Your task to perform on an android device: Go to accessibility settings Image 0: 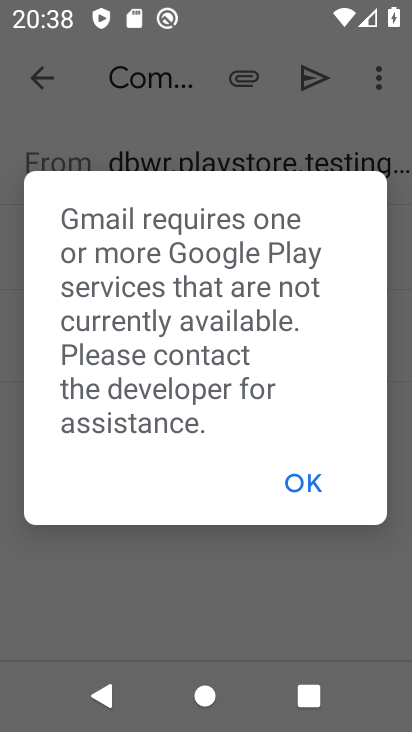
Step 0: press home button
Your task to perform on an android device: Go to accessibility settings Image 1: 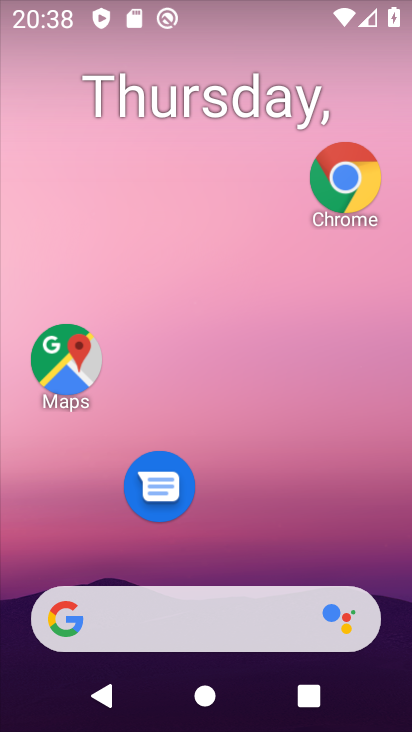
Step 1: drag from (211, 565) to (48, 23)
Your task to perform on an android device: Go to accessibility settings Image 2: 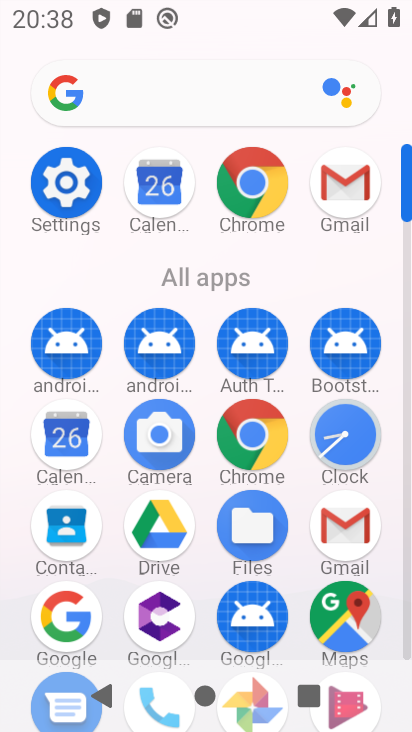
Step 2: click (48, 206)
Your task to perform on an android device: Go to accessibility settings Image 3: 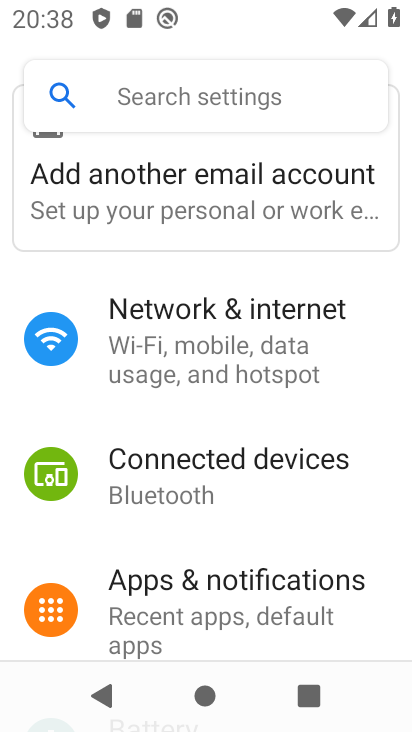
Step 3: drag from (187, 521) to (100, 57)
Your task to perform on an android device: Go to accessibility settings Image 4: 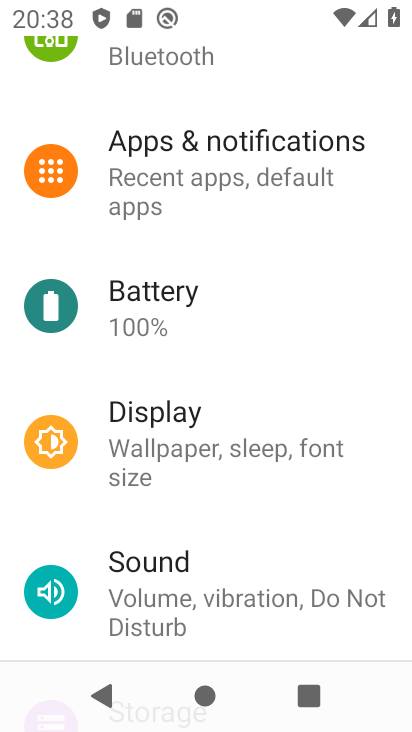
Step 4: drag from (180, 524) to (72, 39)
Your task to perform on an android device: Go to accessibility settings Image 5: 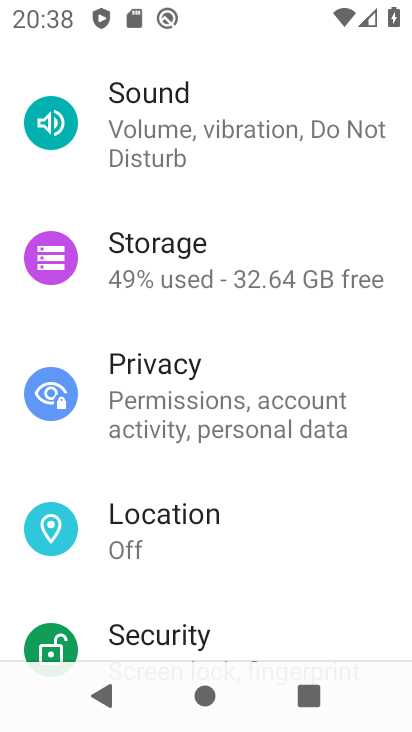
Step 5: drag from (272, 470) to (201, 118)
Your task to perform on an android device: Go to accessibility settings Image 6: 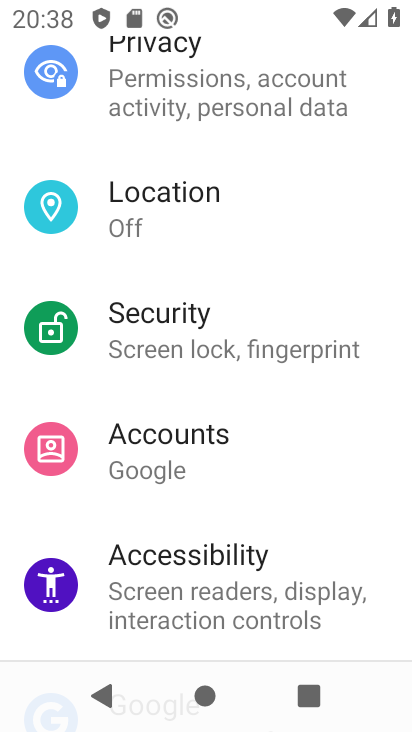
Step 6: click (181, 556)
Your task to perform on an android device: Go to accessibility settings Image 7: 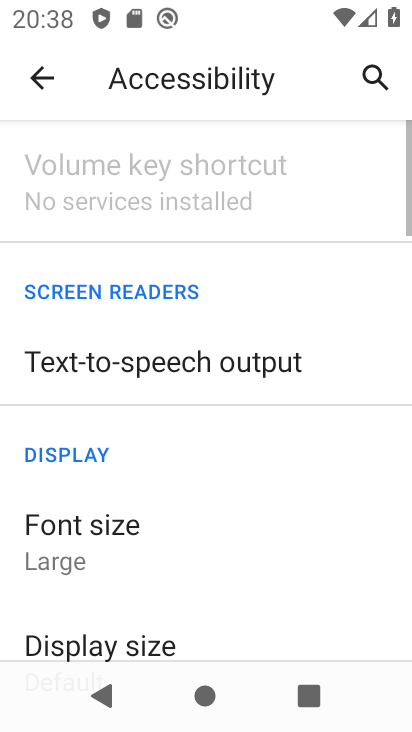
Step 7: task complete